Your task to perform on an android device: move an email to a new category in the gmail app Image 0: 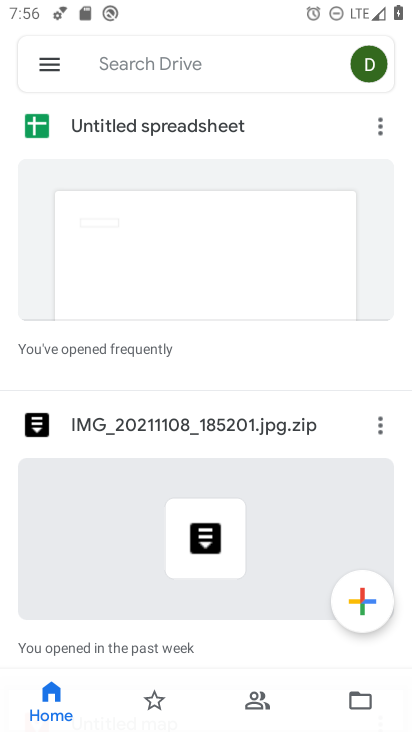
Step 0: press home button
Your task to perform on an android device: move an email to a new category in the gmail app Image 1: 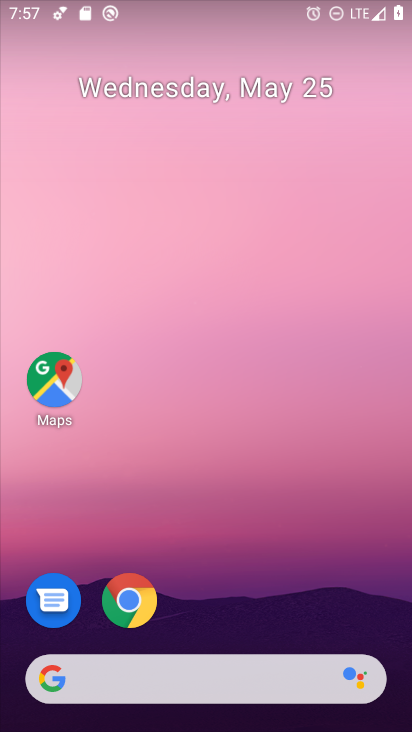
Step 1: drag from (275, 468) to (299, 116)
Your task to perform on an android device: move an email to a new category in the gmail app Image 2: 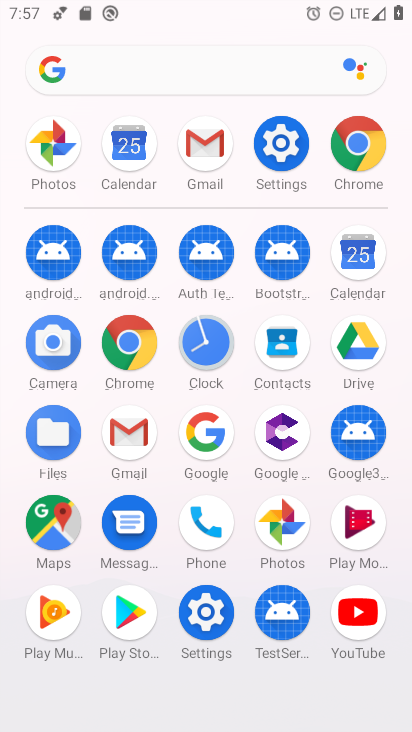
Step 2: click (203, 160)
Your task to perform on an android device: move an email to a new category in the gmail app Image 3: 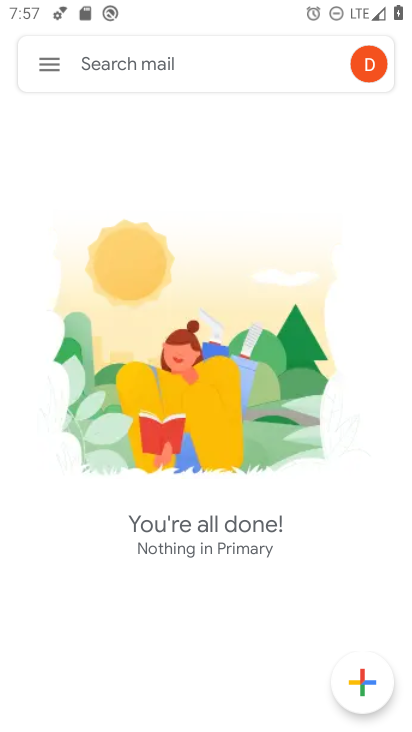
Step 3: click (63, 68)
Your task to perform on an android device: move an email to a new category in the gmail app Image 4: 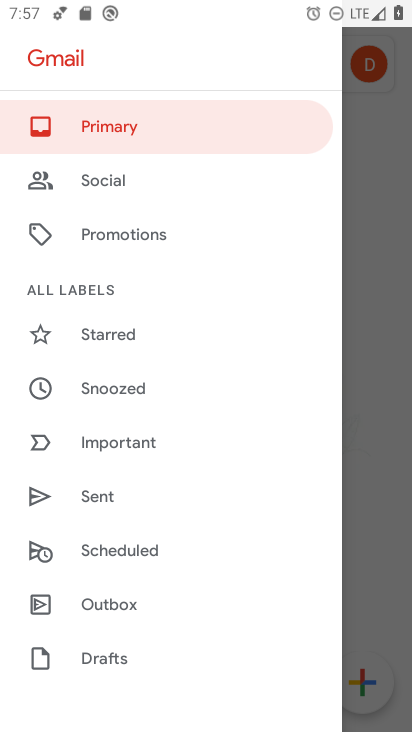
Step 4: drag from (135, 563) to (189, 207)
Your task to perform on an android device: move an email to a new category in the gmail app Image 5: 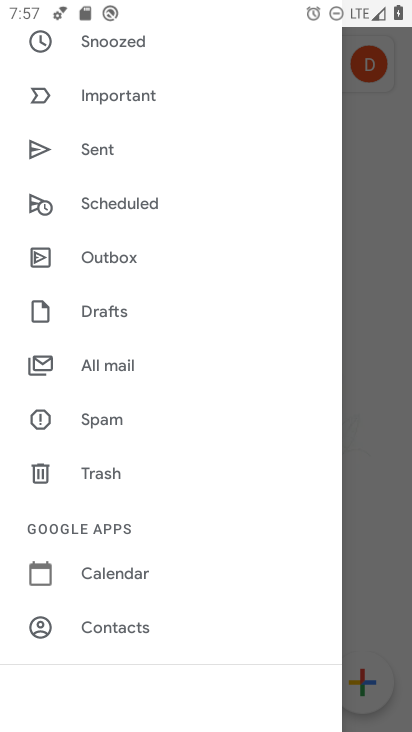
Step 5: click (115, 357)
Your task to perform on an android device: move an email to a new category in the gmail app Image 6: 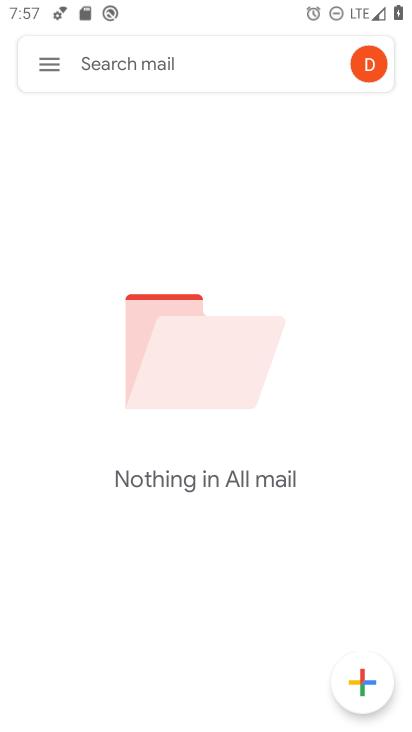
Step 6: task complete